Your task to perform on an android device: open app "VLC for Android" Image 0: 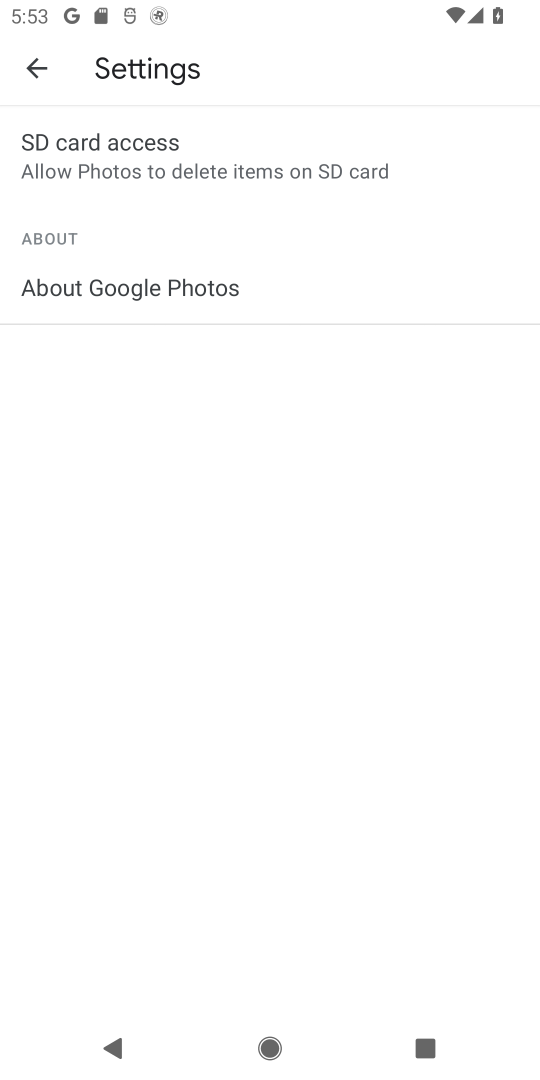
Step 0: press home button
Your task to perform on an android device: open app "VLC for Android" Image 1: 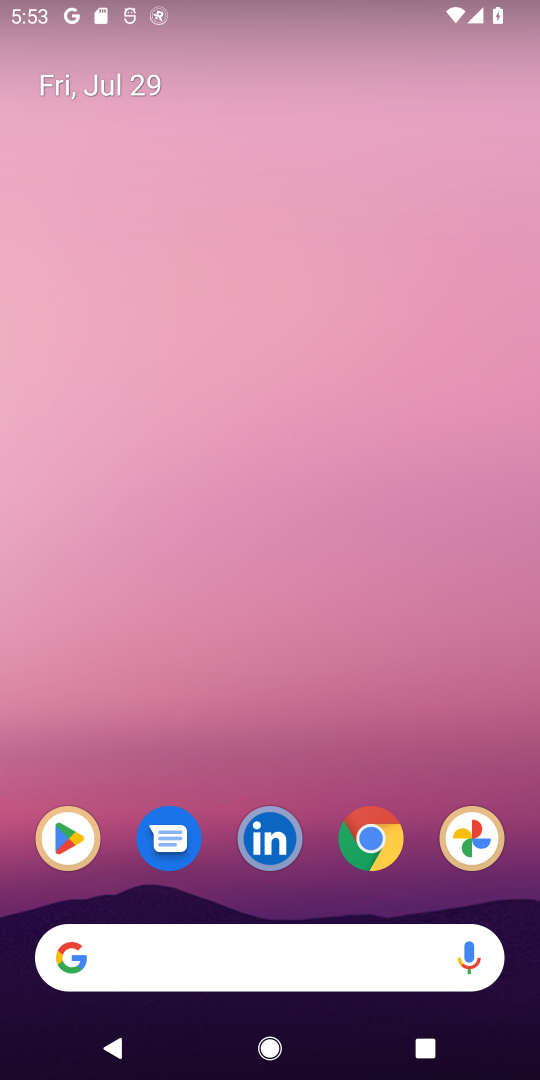
Step 1: click (69, 826)
Your task to perform on an android device: open app "VLC for Android" Image 2: 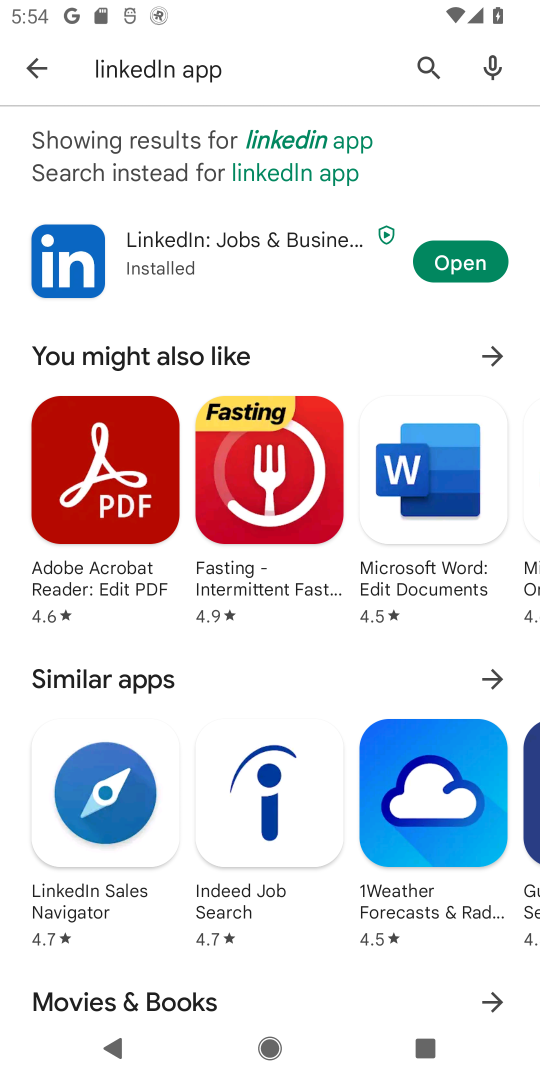
Step 2: click (419, 72)
Your task to perform on an android device: open app "VLC for Android" Image 3: 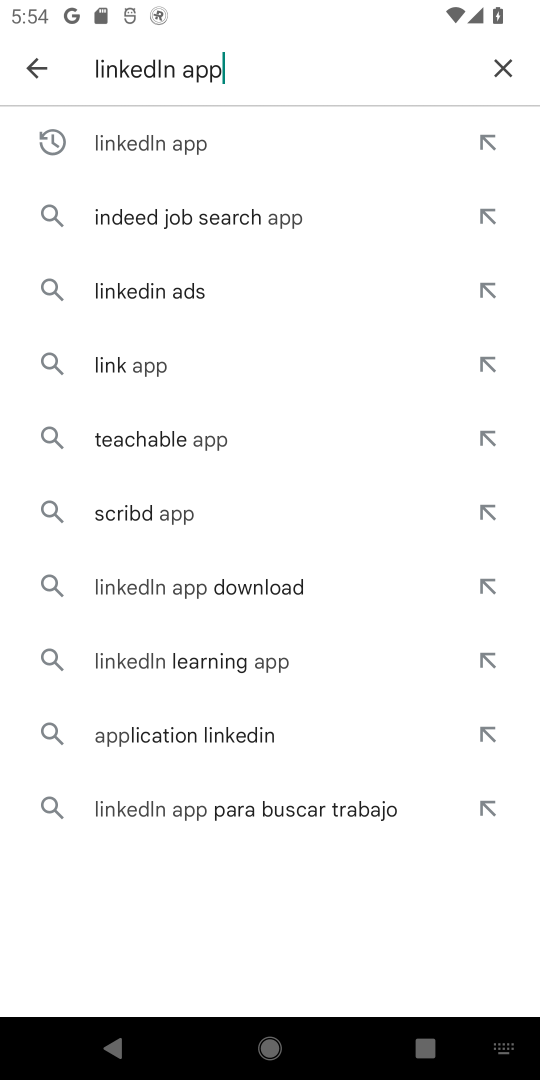
Step 3: click (495, 65)
Your task to perform on an android device: open app "VLC for Android" Image 4: 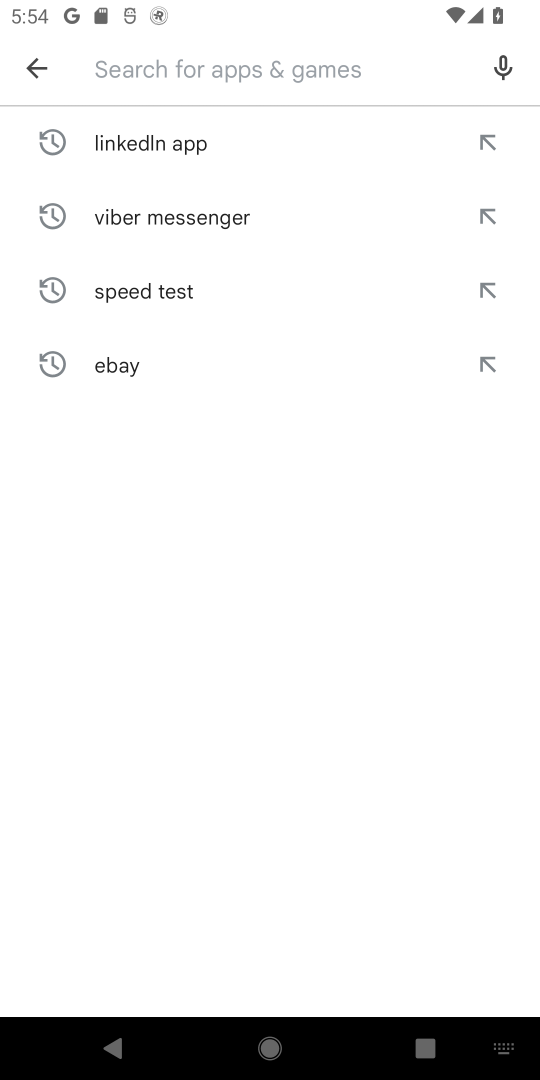
Step 4: click (195, 84)
Your task to perform on an android device: open app "VLC for Android" Image 5: 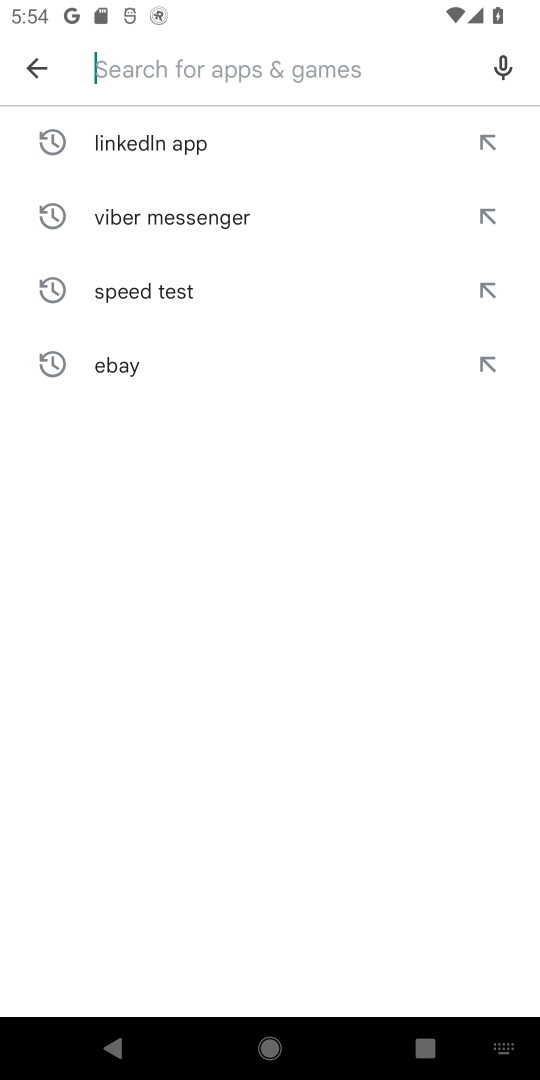
Step 5: type "vlc"
Your task to perform on an android device: open app "VLC for Android" Image 6: 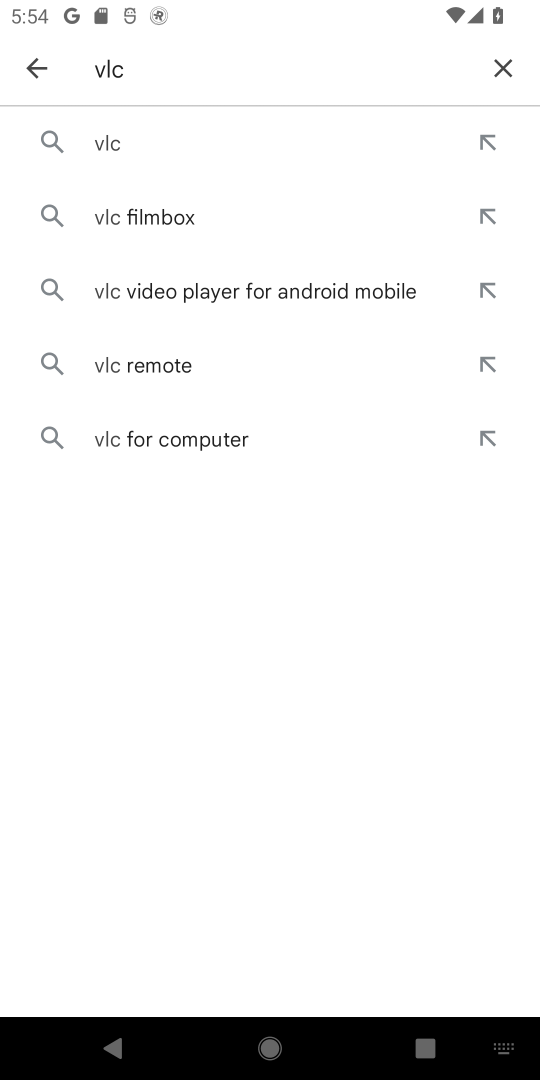
Step 6: type " for android"
Your task to perform on an android device: open app "VLC for Android" Image 7: 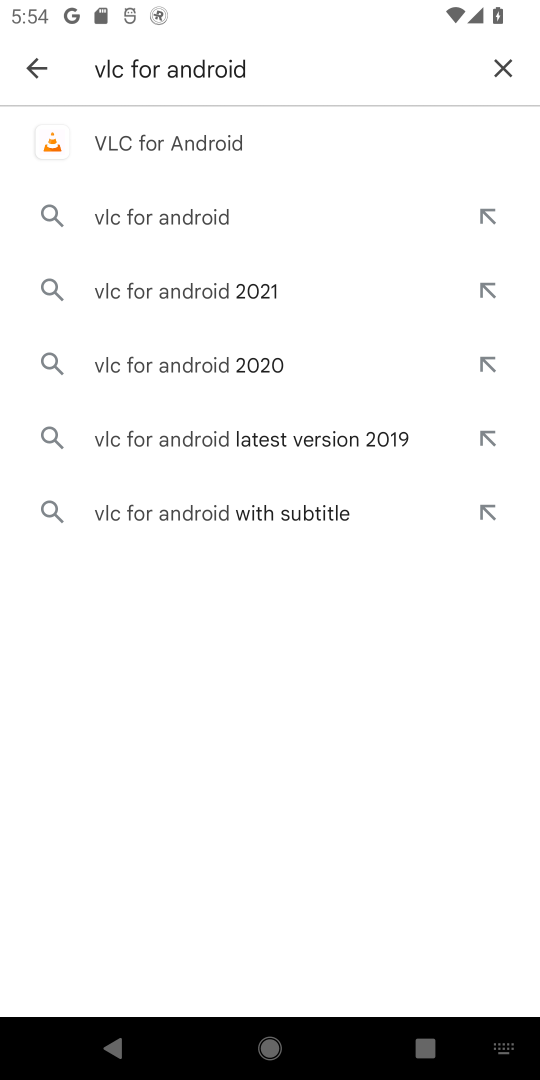
Step 7: click (151, 154)
Your task to perform on an android device: open app "VLC for Android" Image 8: 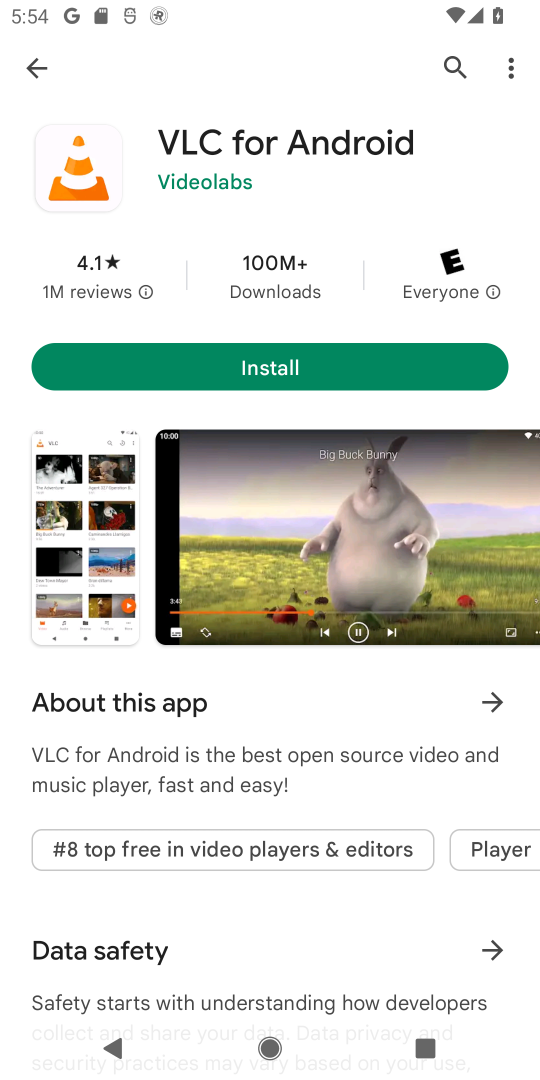
Step 8: task complete